Your task to perform on an android device: open wifi settings Image 0: 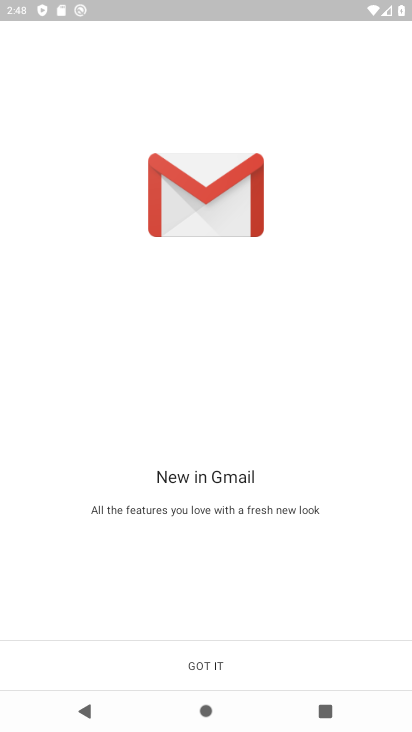
Step 0: press home button
Your task to perform on an android device: open wifi settings Image 1: 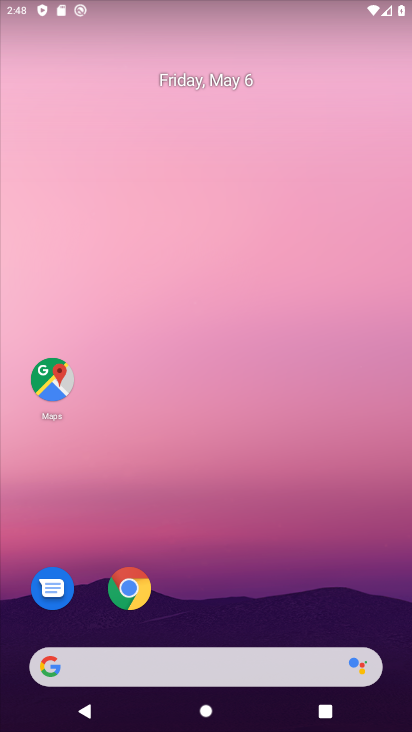
Step 1: drag from (202, 647) to (250, 269)
Your task to perform on an android device: open wifi settings Image 2: 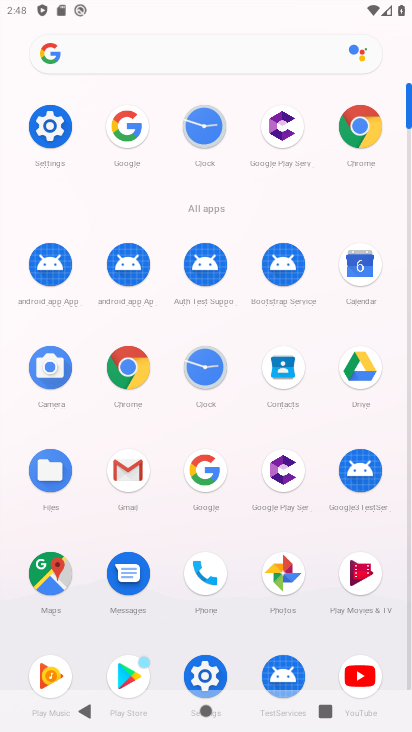
Step 2: click (205, 671)
Your task to perform on an android device: open wifi settings Image 3: 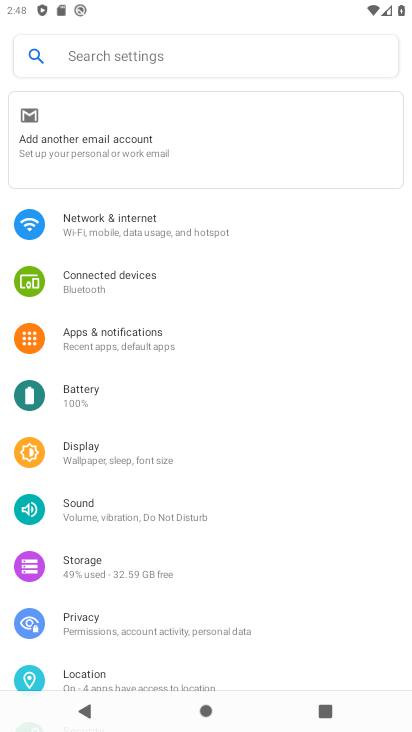
Step 3: click (118, 230)
Your task to perform on an android device: open wifi settings Image 4: 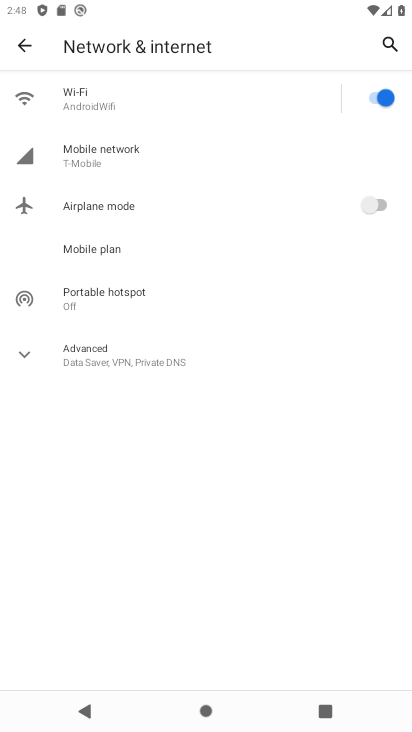
Step 4: click (86, 93)
Your task to perform on an android device: open wifi settings Image 5: 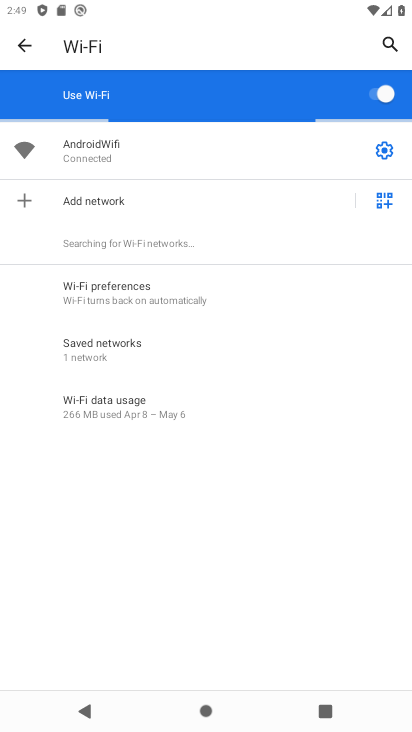
Step 5: click (387, 154)
Your task to perform on an android device: open wifi settings Image 6: 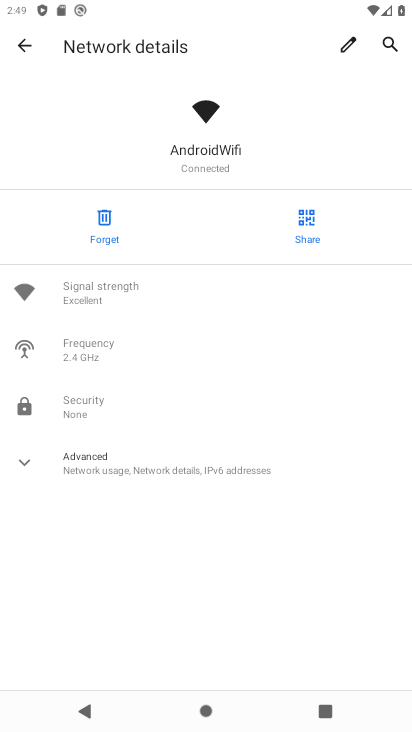
Step 6: click (99, 471)
Your task to perform on an android device: open wifi settings Image 7: 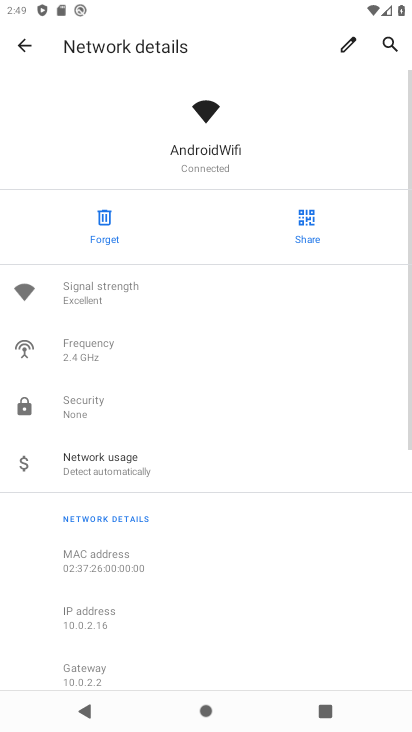
Step 7: task complete